Your task to perform on an android device: Go to internet settings Image 0: 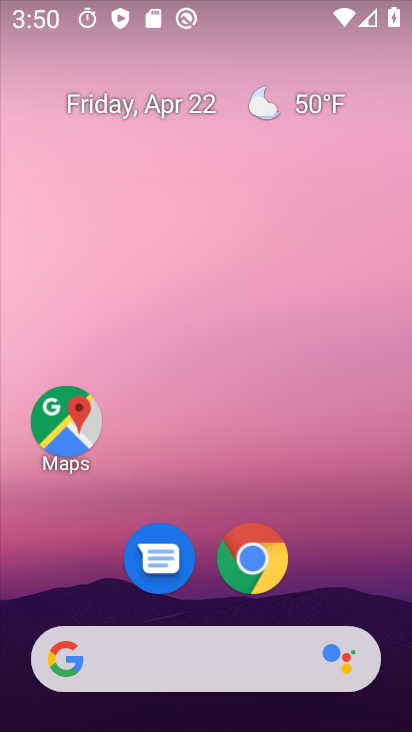
Step 0: drag from (308, 607) to (282, 275)
Your task to perform on an android device: Go to internet settings Image 1: 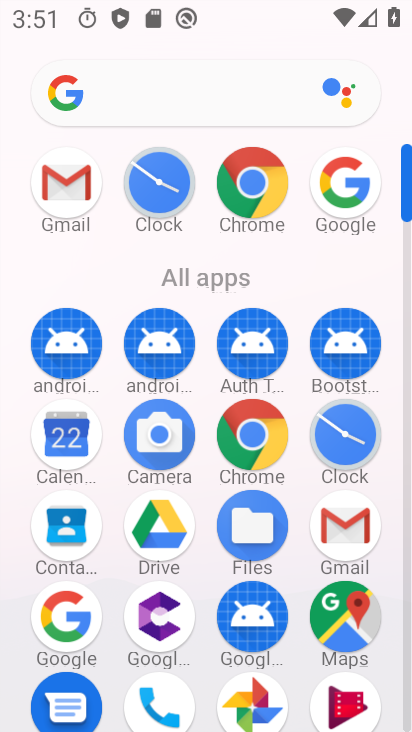
Step 1: drag from (280, 648) to (264, 316)
Your task to perform on an android device: Go to internet settings Image 2: 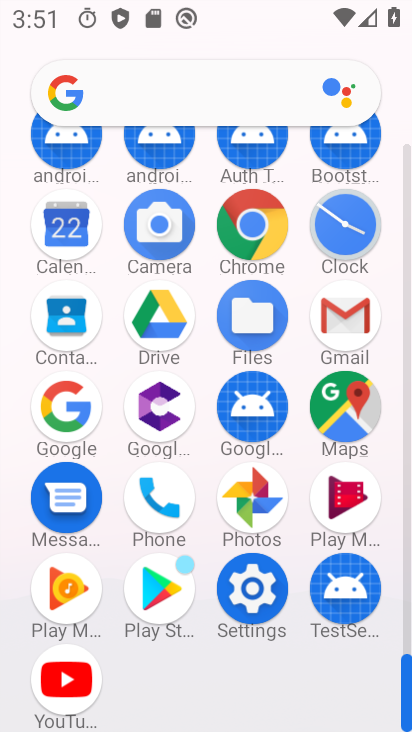
Step 2: click (261, 602)
Your task to perform on an android device: Go to internet settings Image 3: 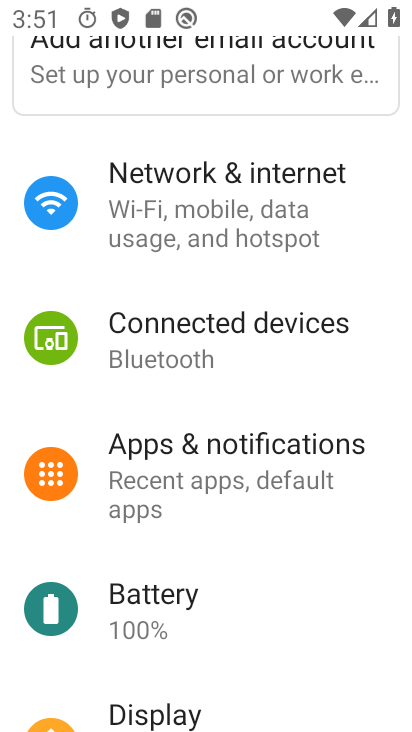
Step 3: drag from (270, 636) to (260, 397)
Your task to perform on an android device: Go to internet settings Image 4: 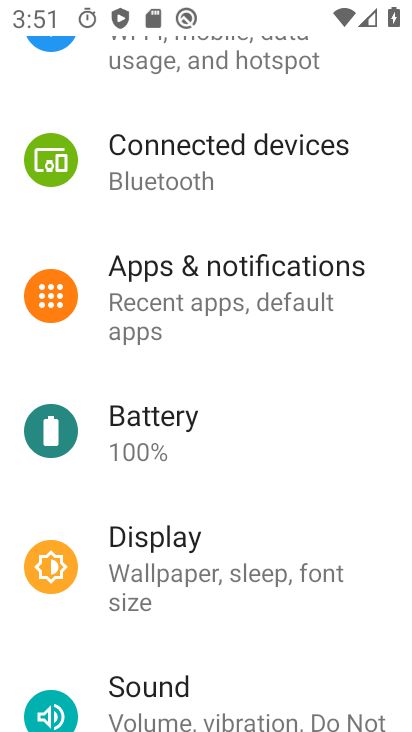
Step 4: drag from (238, 636) to (297, 317)
Your task to perform on an android device: Go to internet settings Image 5: 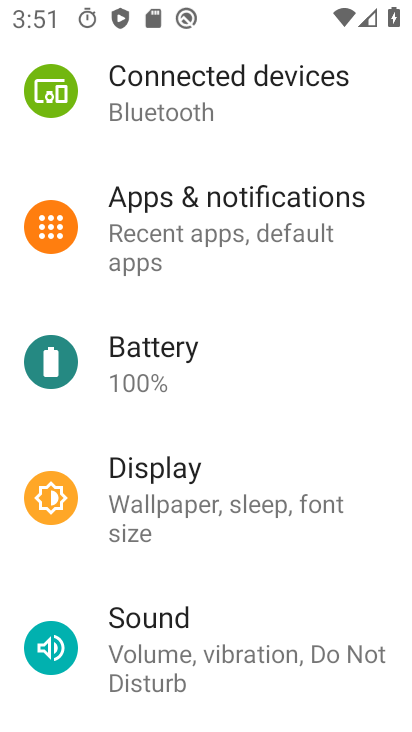
Step 5: drag from (266, 353) to (248, 674)
Your task to perform on an android device: Go to internet settings Image 6: 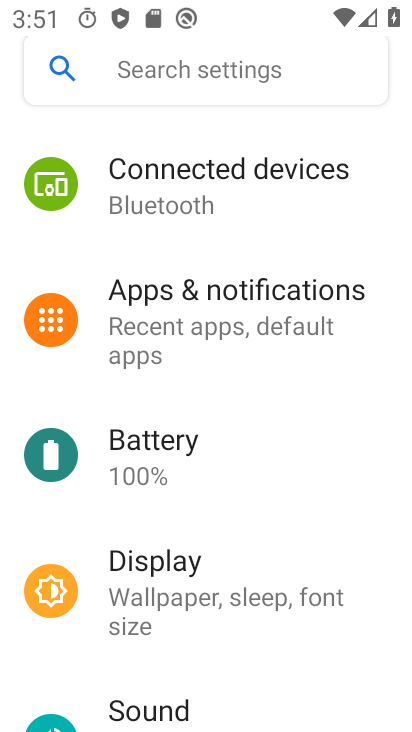
Step 6: drag from (288, 334) to (273, 641)
Your task to perform on an android device: Go to internet settings Image 7: 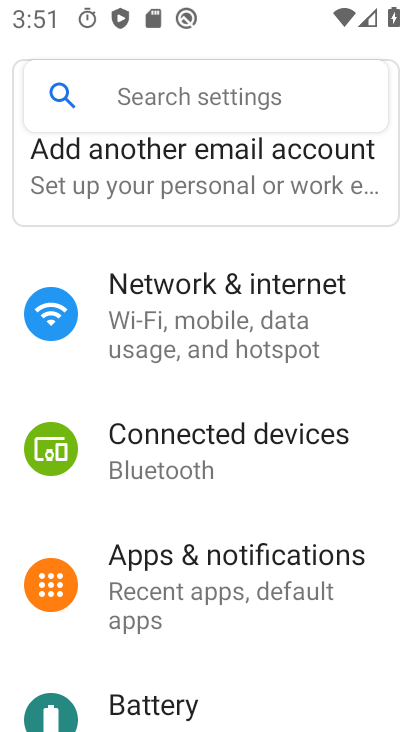
Step 7: click (219, 288)
Your task to perform on an android device: Go to internet settings Image 8: 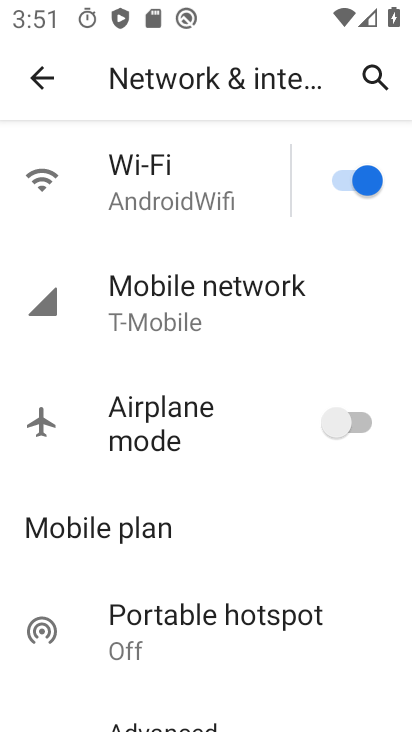
Step 8: task complete